Your task to perform on an android device: Show me recent news Image 0: 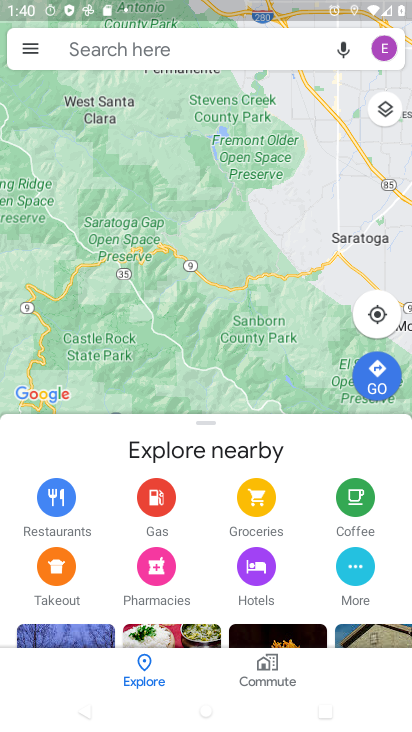
Step 0: press home button
Your task to perform on an android device: Show me recent news Image 1: 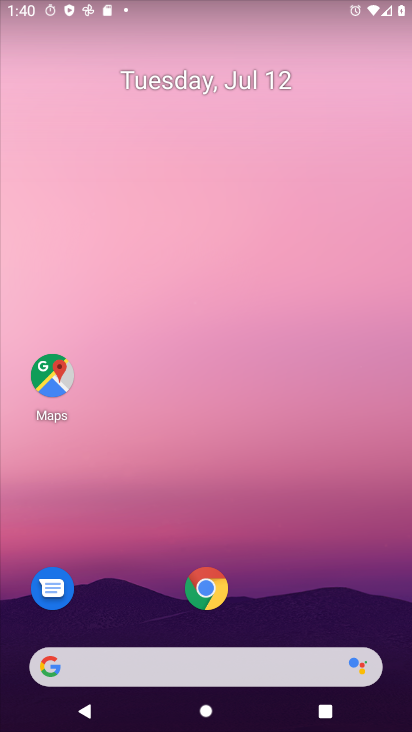
Step 1: click (185, 671)
Your task to perform on an android device: Show me recent news Image 2: 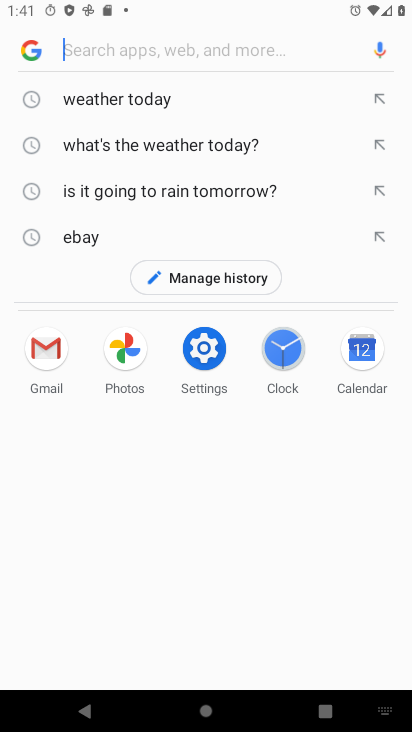
Step 2: type "recent news"
Your task to perform on an android device: Show me recent news Image 3: 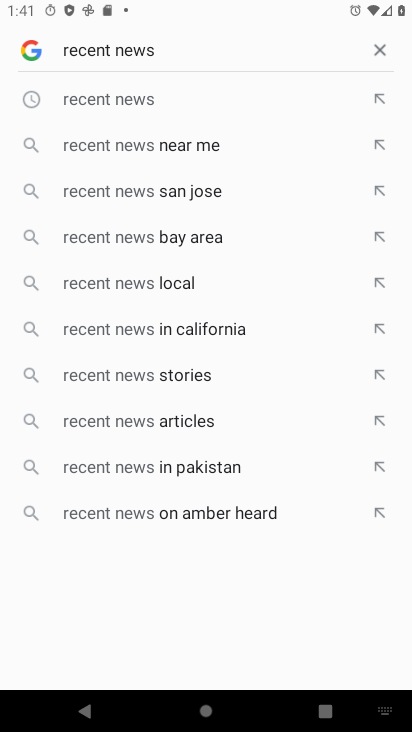
Step 3: click (117, 98)
Your task to perform on an android device: Show me recent news Image 4: 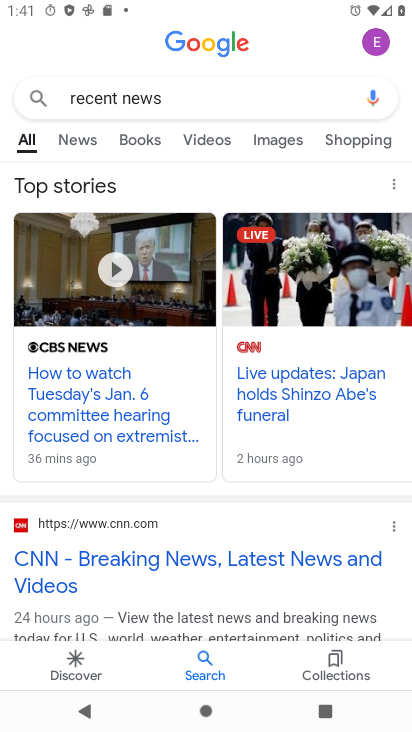
Step 4: click (71, 147)
Your task to perform on an android device: Show me recent news Image 5: 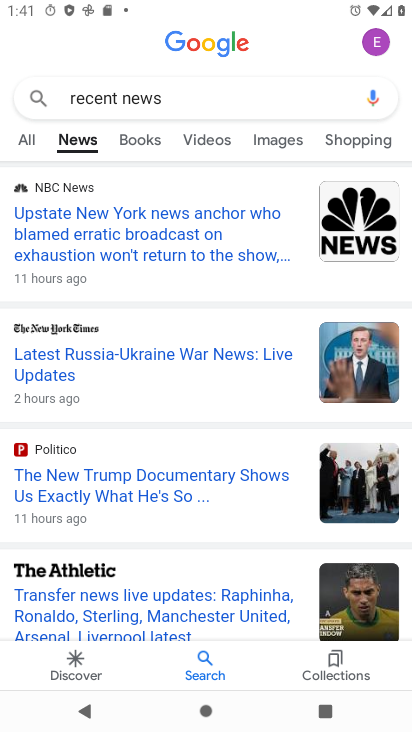
Step 5: task complete